Your task to perform on an android device: set the timer Image 0: 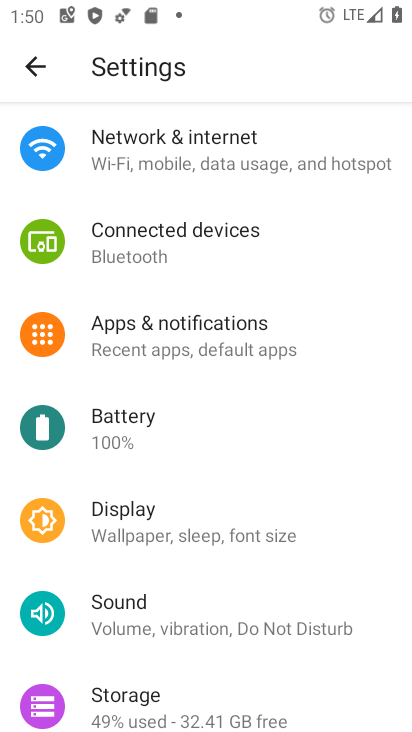
Step 0: press home button
Your task to perform on an android device: set the timer Image 1: 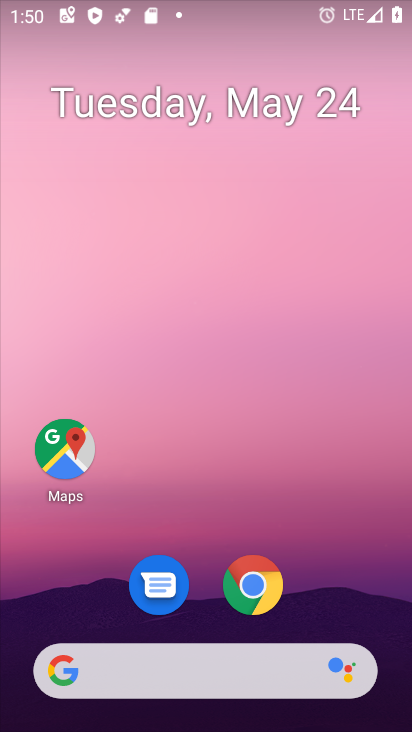
Step 1: drag from (228, 488) to (246, 23)
Your task to perform on an android device: set the timer Image 2: 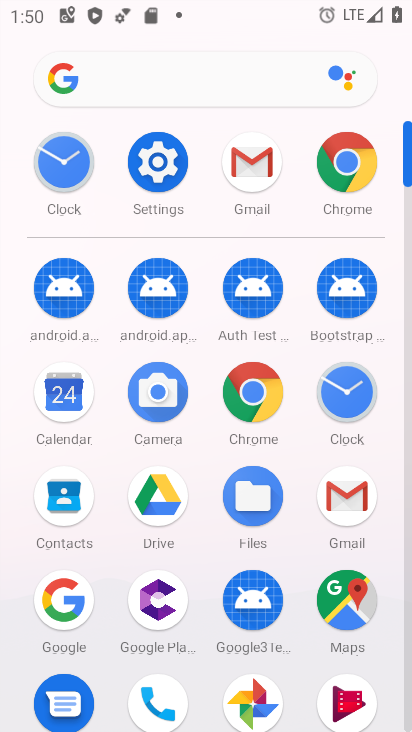
Step 2: click (344, 392)
Your task to perform on an android device: set the timer Image 3: 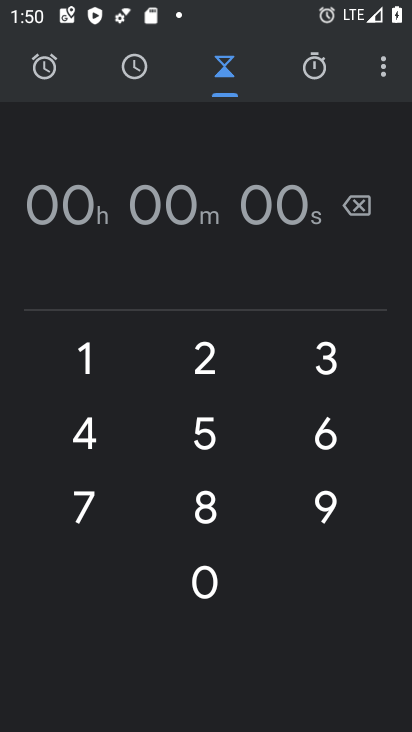
Step 3: click (77, 356)
Your task to perform on an android device: set the timer Image 4: 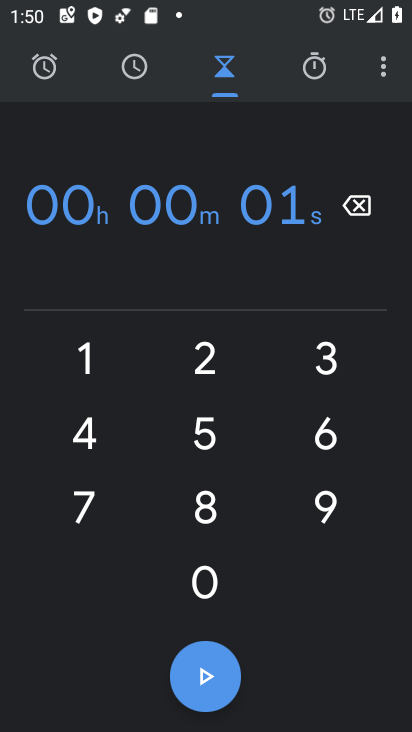
Step 4: task complete